Your task to perform on an android device: What is the news today? Image 0: 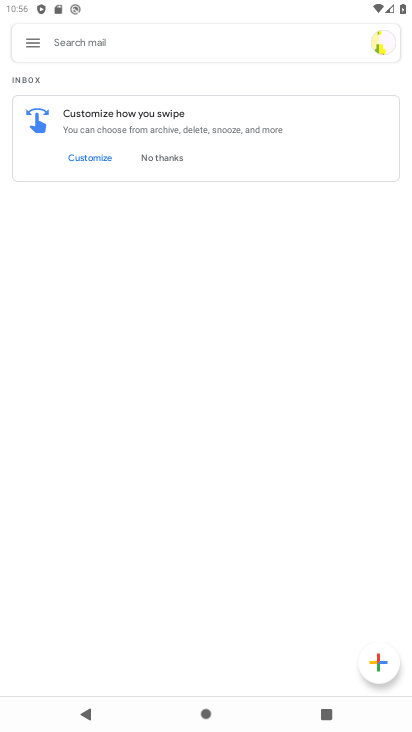
Step 0: press home button
Your task to perform on an android device: What is the news today? Image 1: 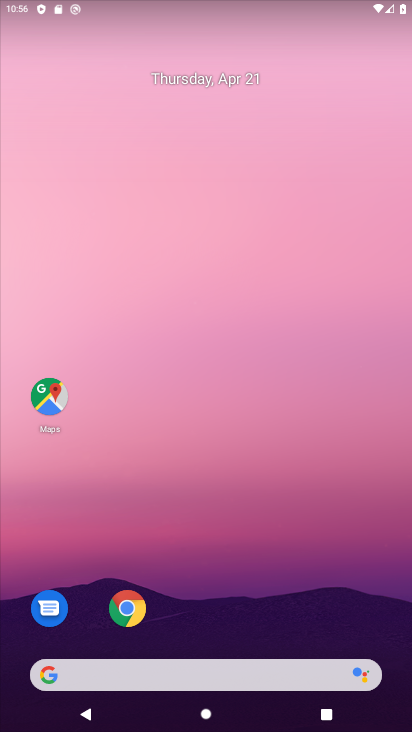
Step 1: click (127, 612)
Your task to perform on an android device: What is the news today? Image 2: 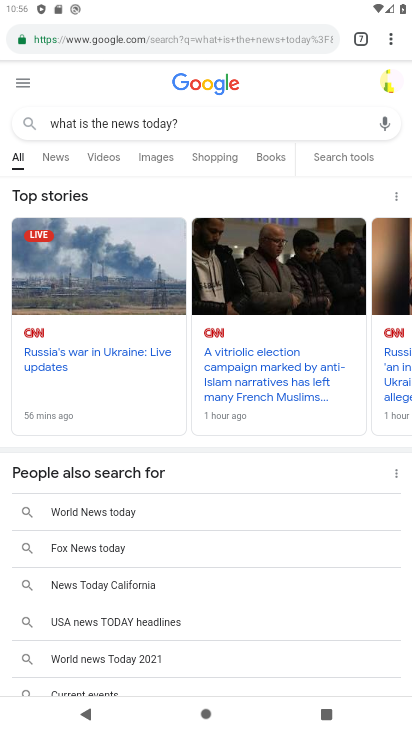
Step 2: task complete